Your task to perform on an android device: check the backup settings in the google photos Image 0: 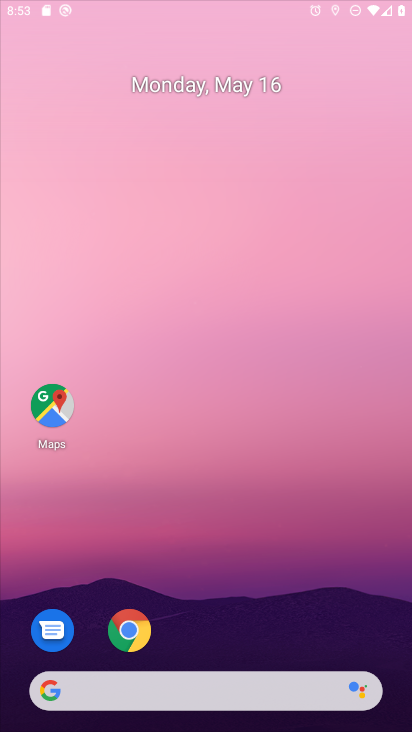
Step 0: click (290, 197)
Your task to perform on an android device: check the backup settings in the google photos Image 1: 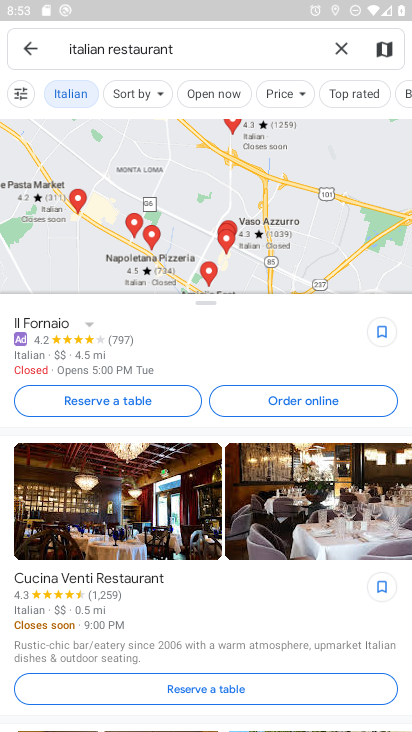
Step 1: press home button
Your task to perform on an android device: check the backup settings in the google photos Image 2: 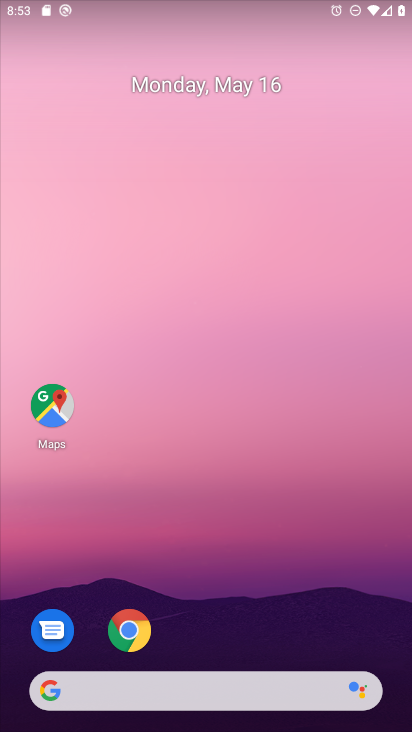
Step 2: drag from (141, 553) to (167, 105)
Your task to perform on an android device: check the backup settings in the google photos Image 3: 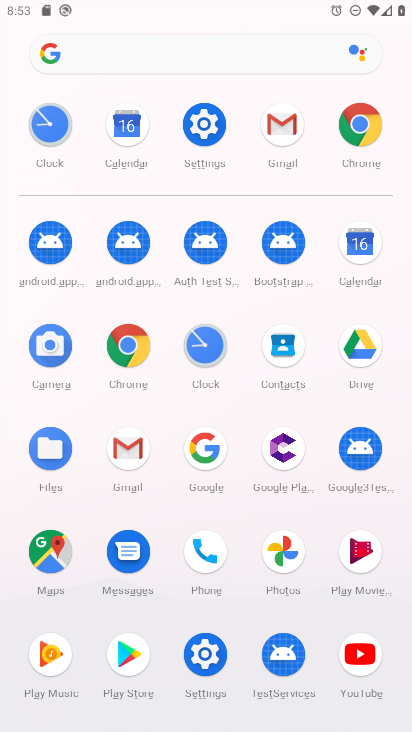
Step 3: click (297, 552)
Your task to perform on an android device: check the backup settings in the google photos Image 4: 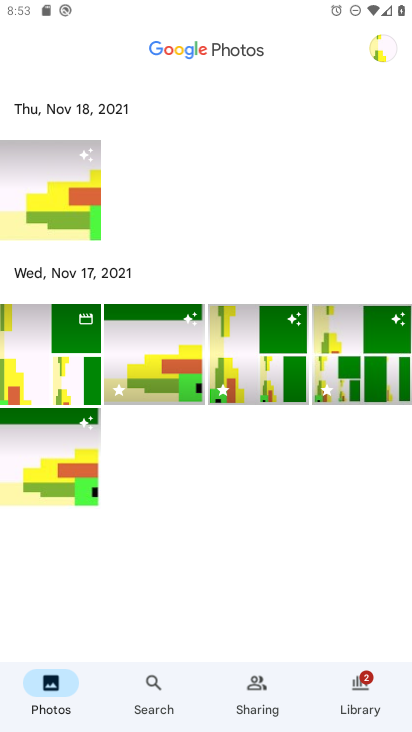
Step 4: click (378, 63)
Your task to perform on an android device: check the backup settings in the google photos Image 5: 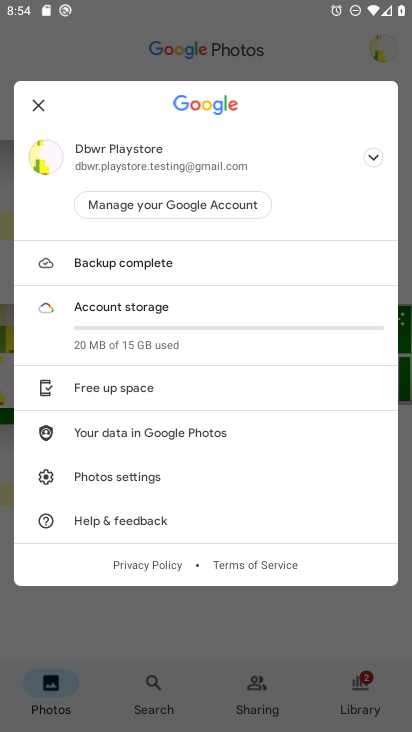
Step 5: click (107, 475)
Your task to perform on an android device: check the backup settings in the google photos Image 6: 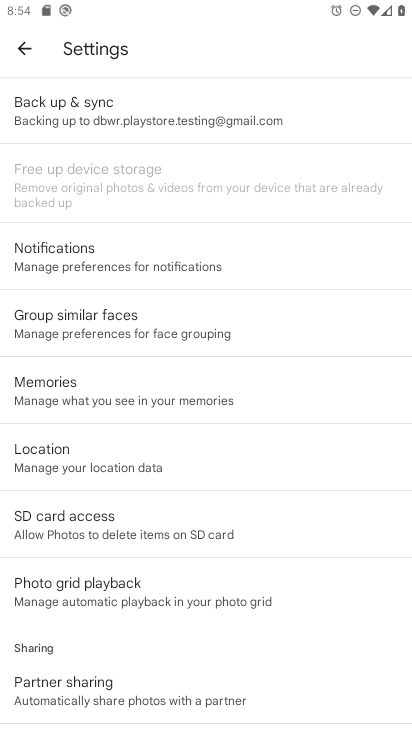
Step 6: click (158, 102)
Your task to perform on an android device: check the backup settings in the google photos Image 7: 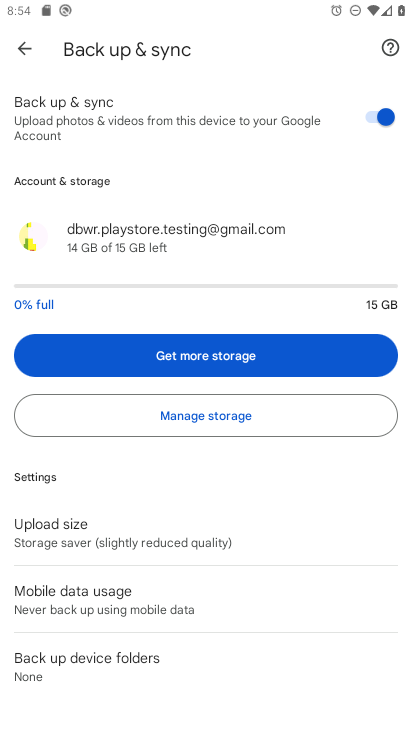
Step 7: task complete